Your task to perform on an android device: What's the weather today? Image 0: 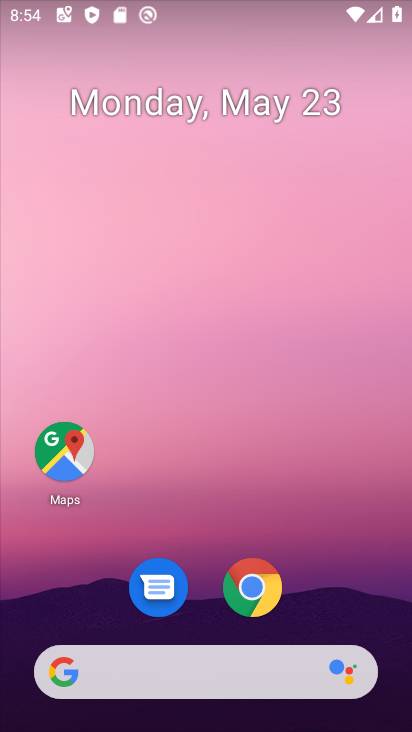
Step 0: click (147, 713)
Your task to perform on an android device: What's the weather today? Image 1: 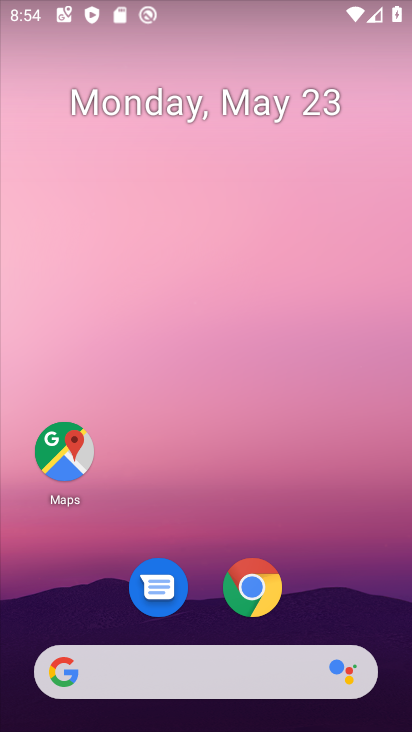
Step 1: click (154, 678)
Your task to perform on an android device: What's the weather today? Image 2: 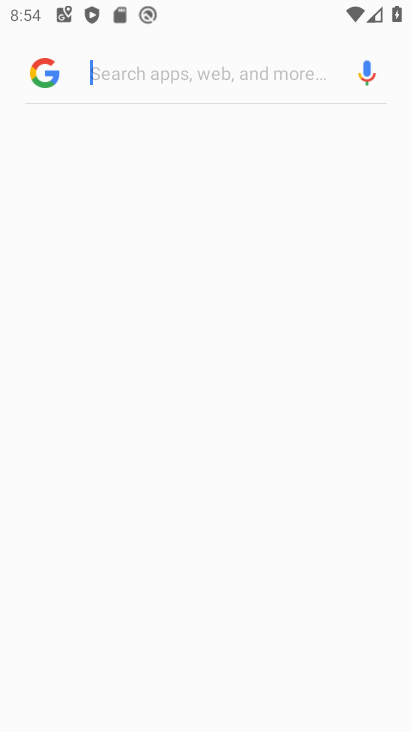
Step 2: click (154, 678)
Your task to perform on an android device: What's the weather today? Image 3: 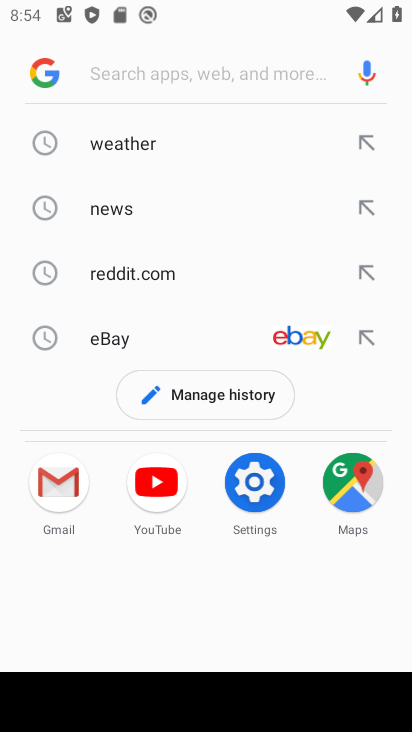
Step 3: click (126, 141)
Your task to perform on an android device: What's the weather today? Image 4: 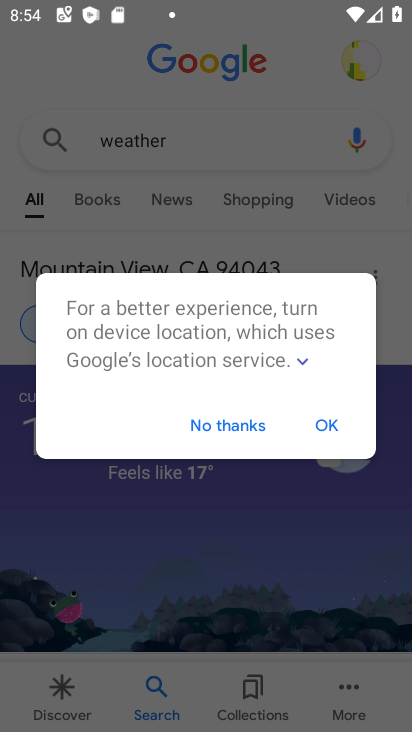
Step 4: click (220, 427)
Your task to perform on an android device: What's the weather today? Image 5: 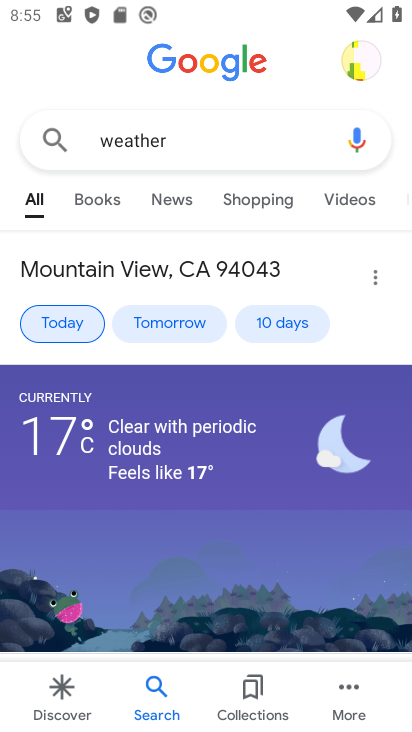
Step 5: task complete